Your task to perform on an android device: Search for the best rated mechanical keyboard on Amazon. Image 0: 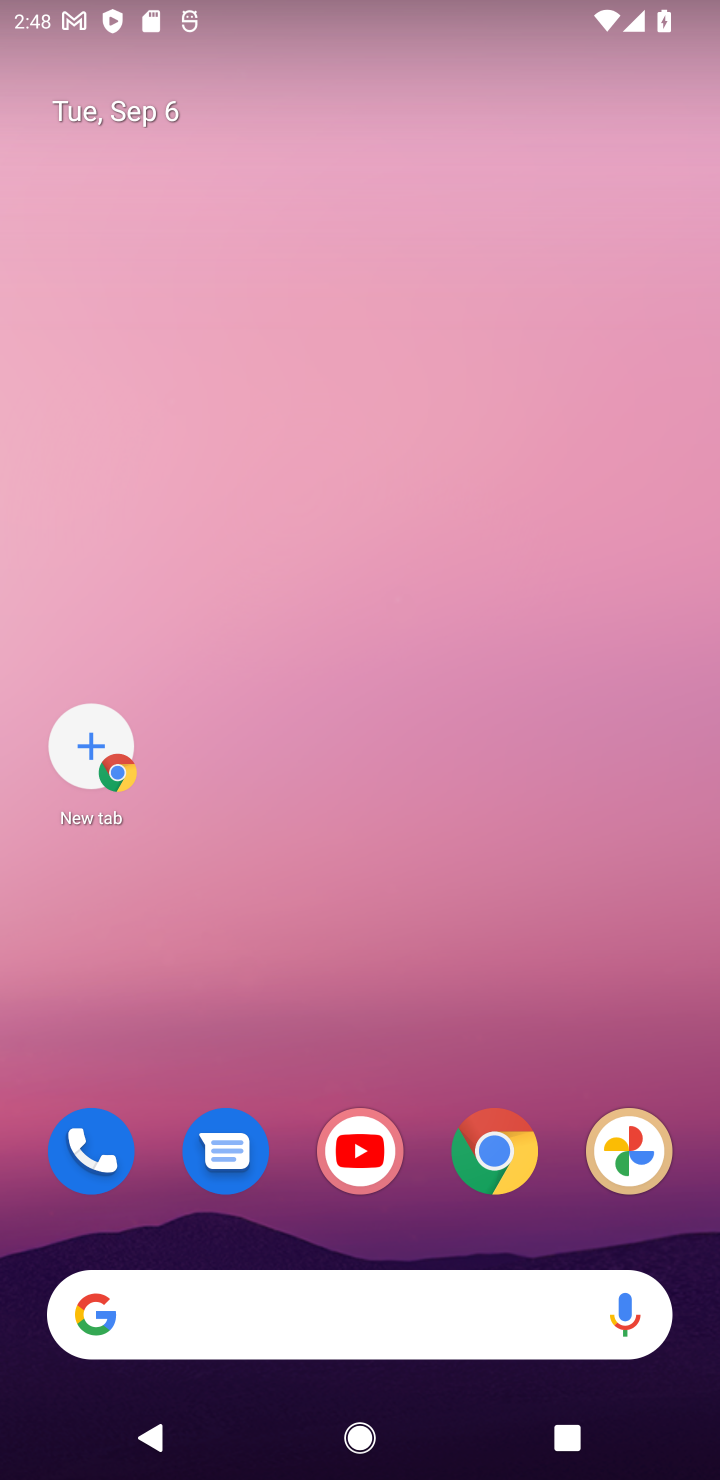
Step 0: click (518, 1171)
Your task to perform on an android device: Search for the best rated mechanical keyboard on Amazon. Image 1: 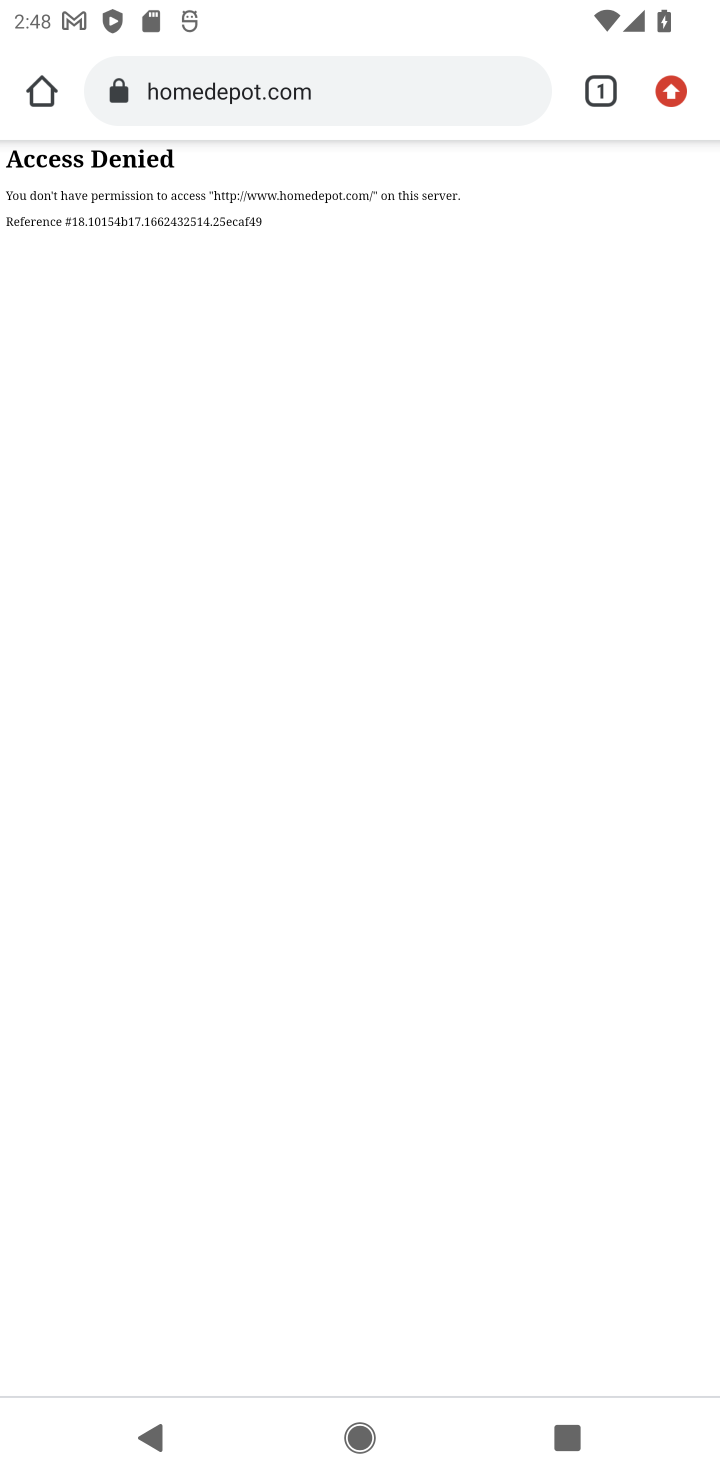
Step 1: click (236, 101)
Your task to perform on an android device: Search for the best rated mechanical keyboard on Amazon. Image 2: 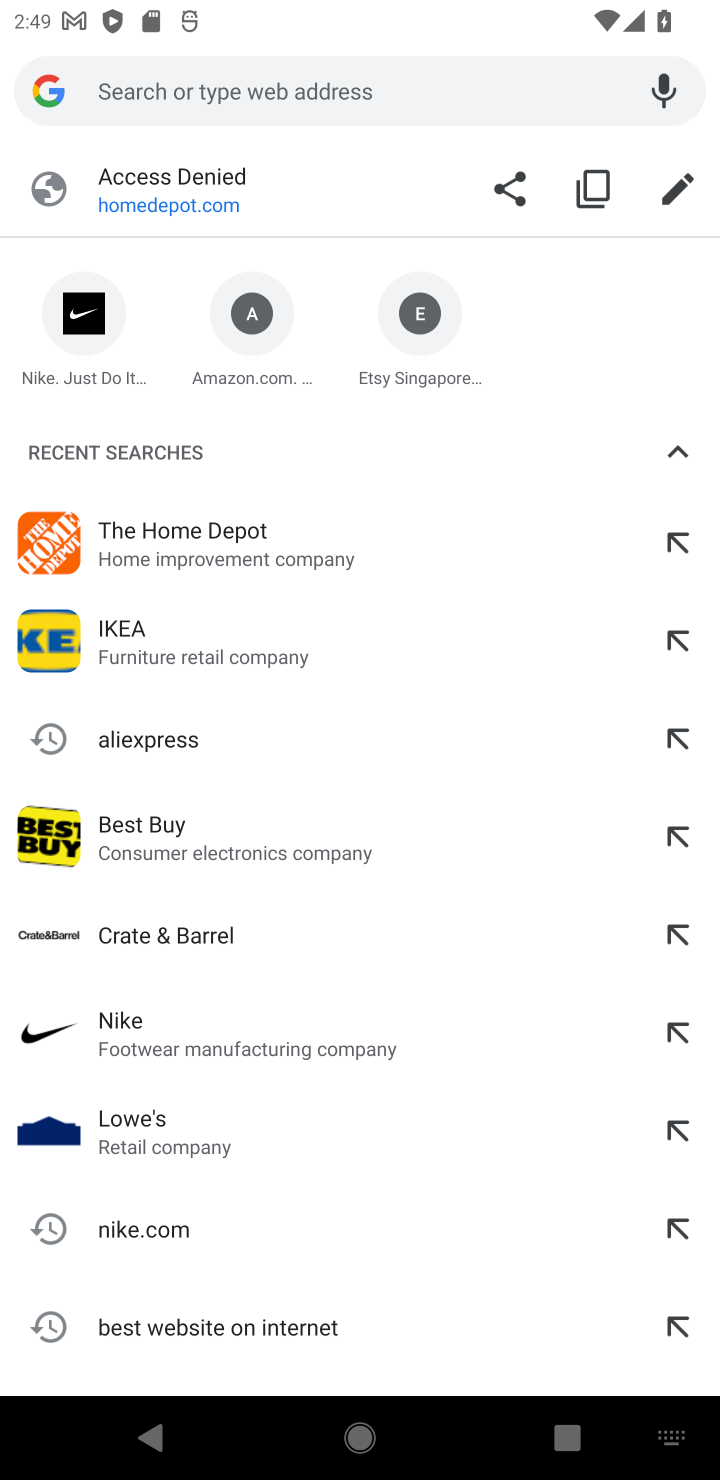
Step 2: type "amazon"
Your task to perform on an android device: Search for the best rated mechanical keyboard on Amazon. Image 3: 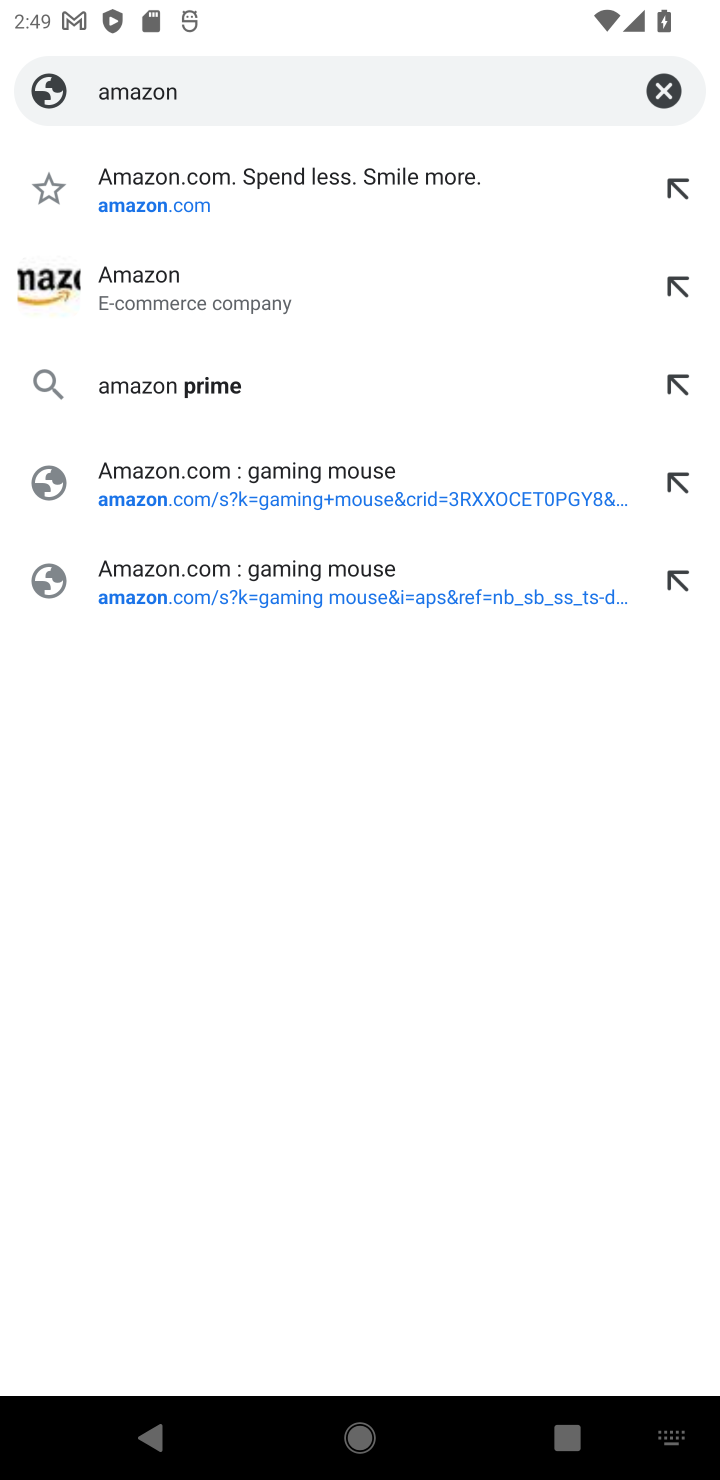
Step 3: click (107, 295)
Your task to perform on an android device: Search for the best rated mechanical keyboard on Amazon. Image 4: 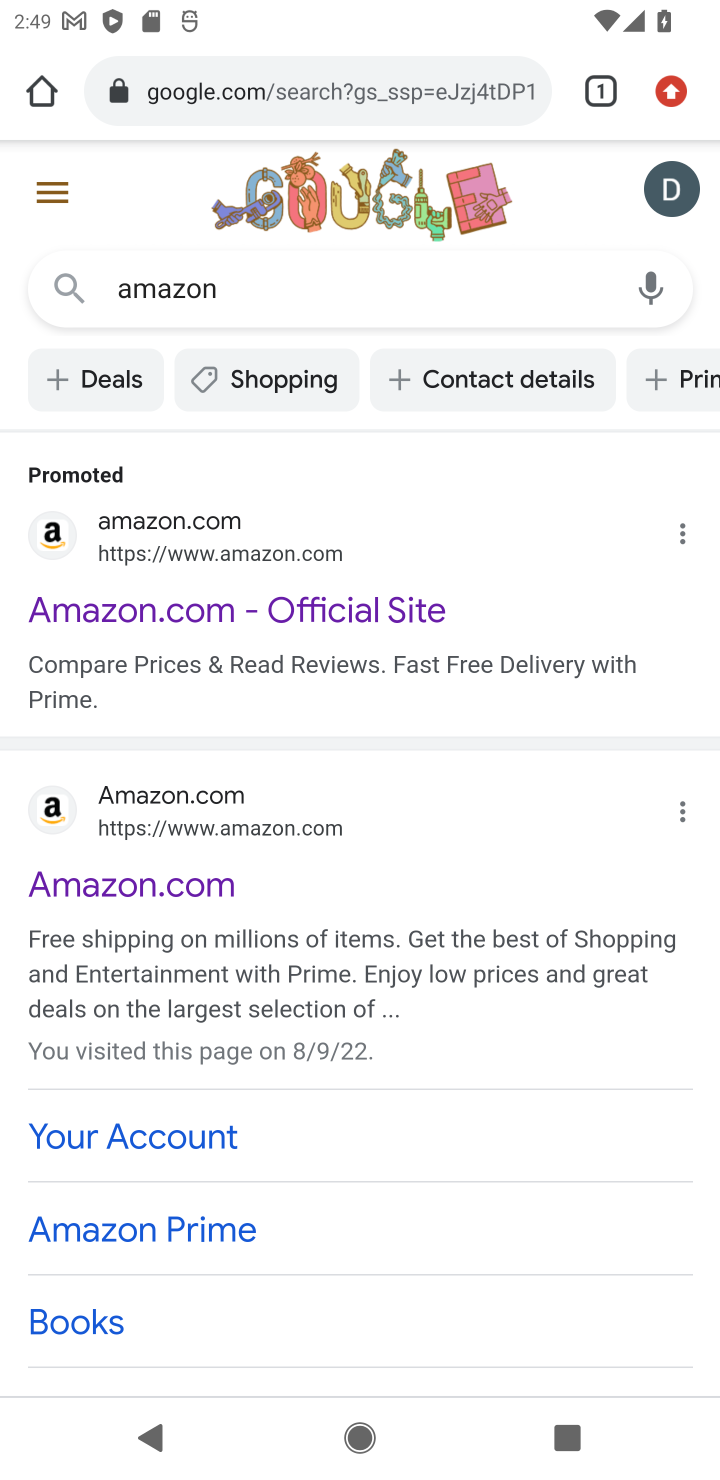
Step 4: click (84, 886)
Your task to perform on an android device: Search for the best rated mechanical keyboard on Amazon. Image 5: 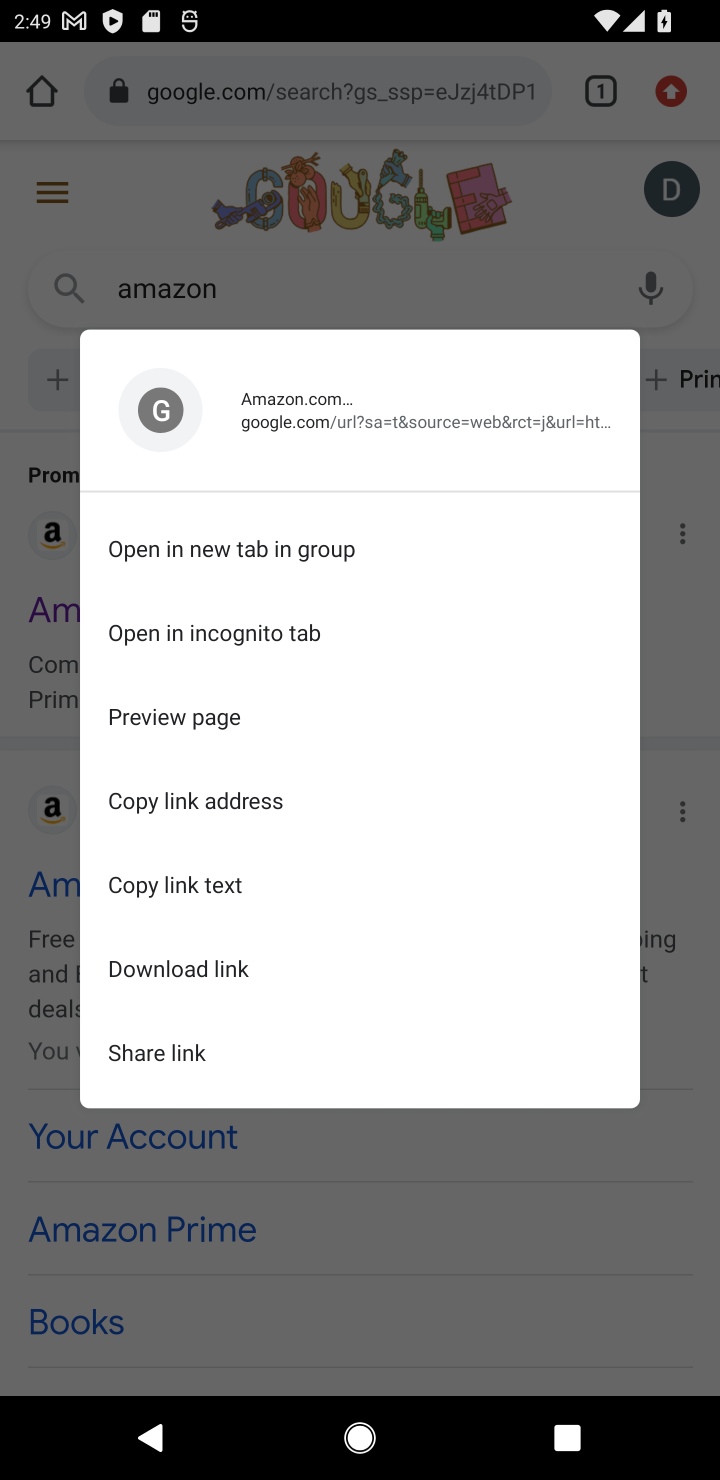
Step 5: click (697, 1077)
Your task to perform on an android device: Search for the best rated mechanical keyboard on Amazon. Image 6: 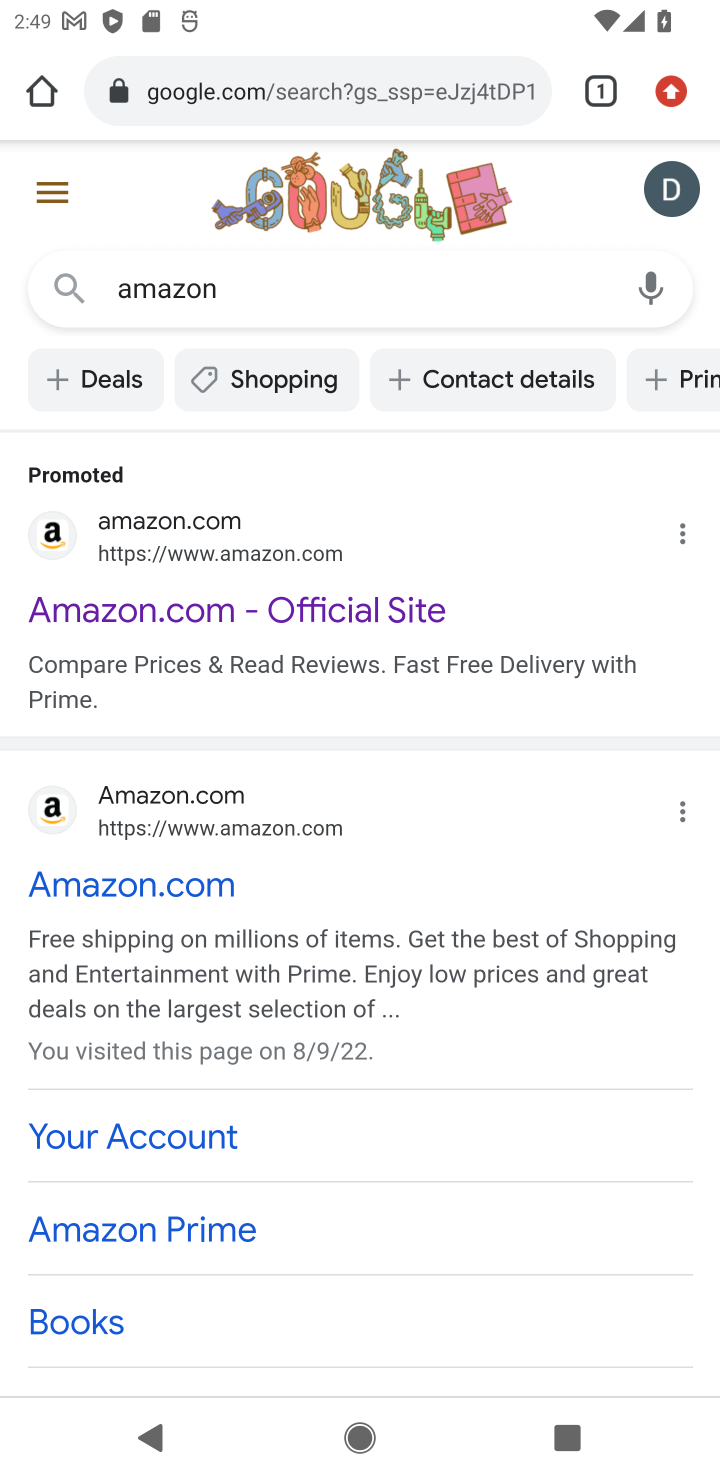
Step 6: click (87, 885)
Your task to perform on an android device: Search for the best rated mechanical keyboard on Amazon. Image 7: 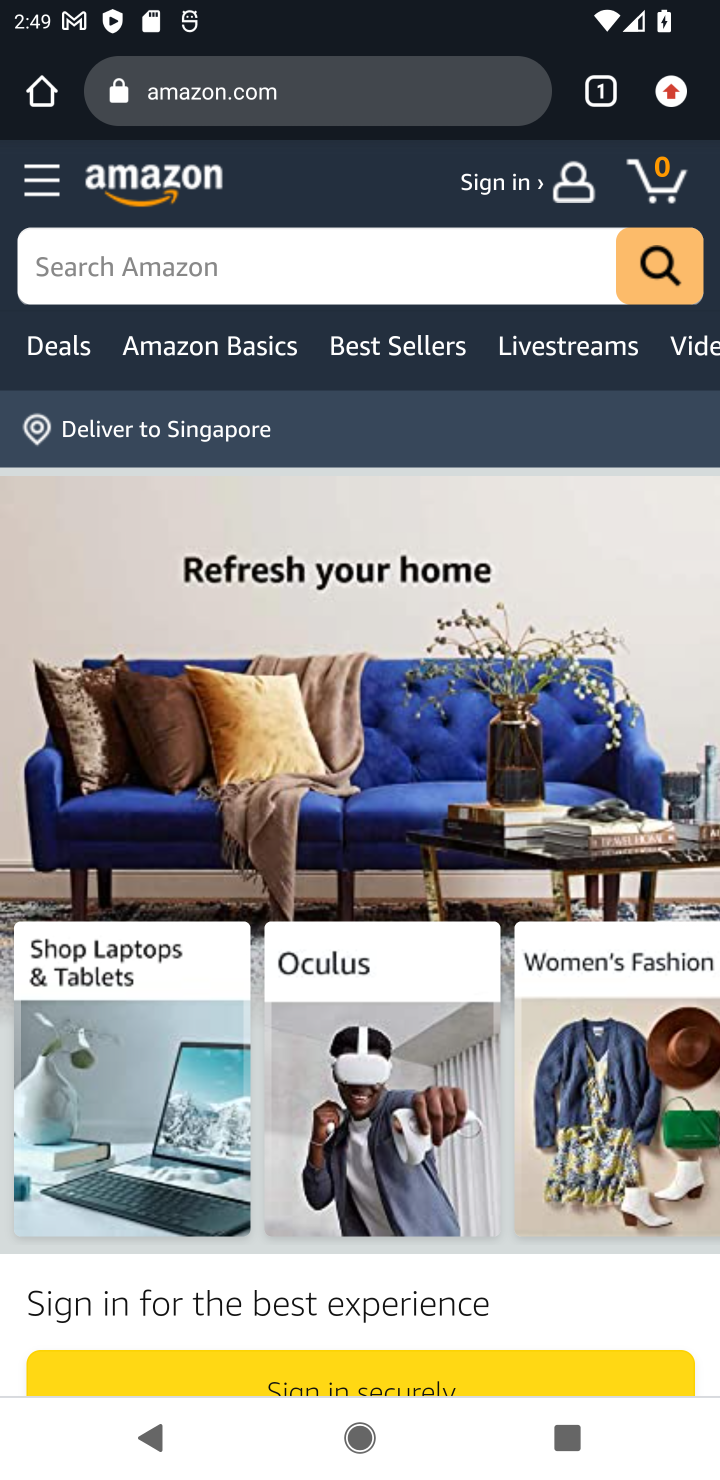
Step 7: click (118, 266)
Your task to perform on an android device: Search for the best rated mechanical keyboard on Amazon. Image 8: 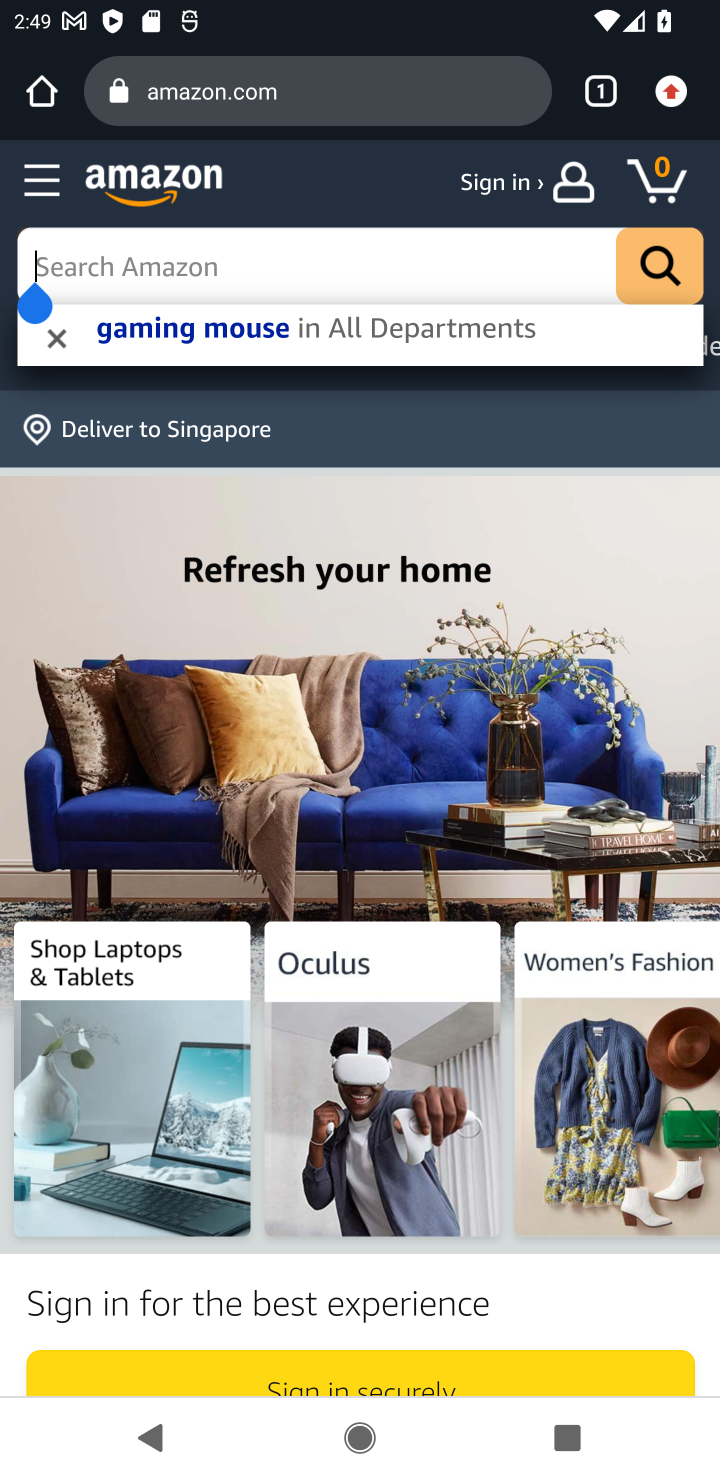
Step 8: type "mechanical keyboard"
Your task to perform on an android device: Search for the best rated mechanical keyboard on Amazon. Image 9: 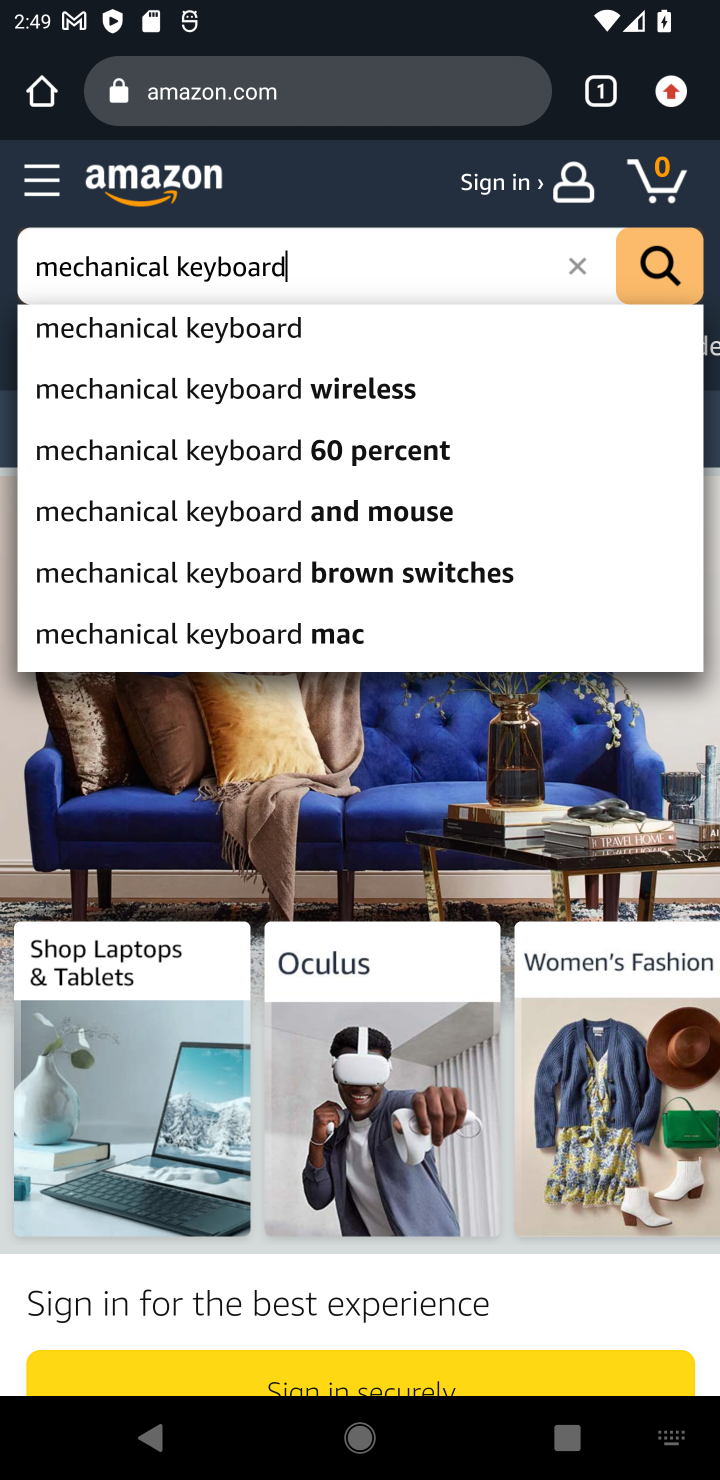
Step 9: click (183, 325)
Your task to perform on an android device: Search for the best rated mechanical keyboard on Amazon. Image 10: 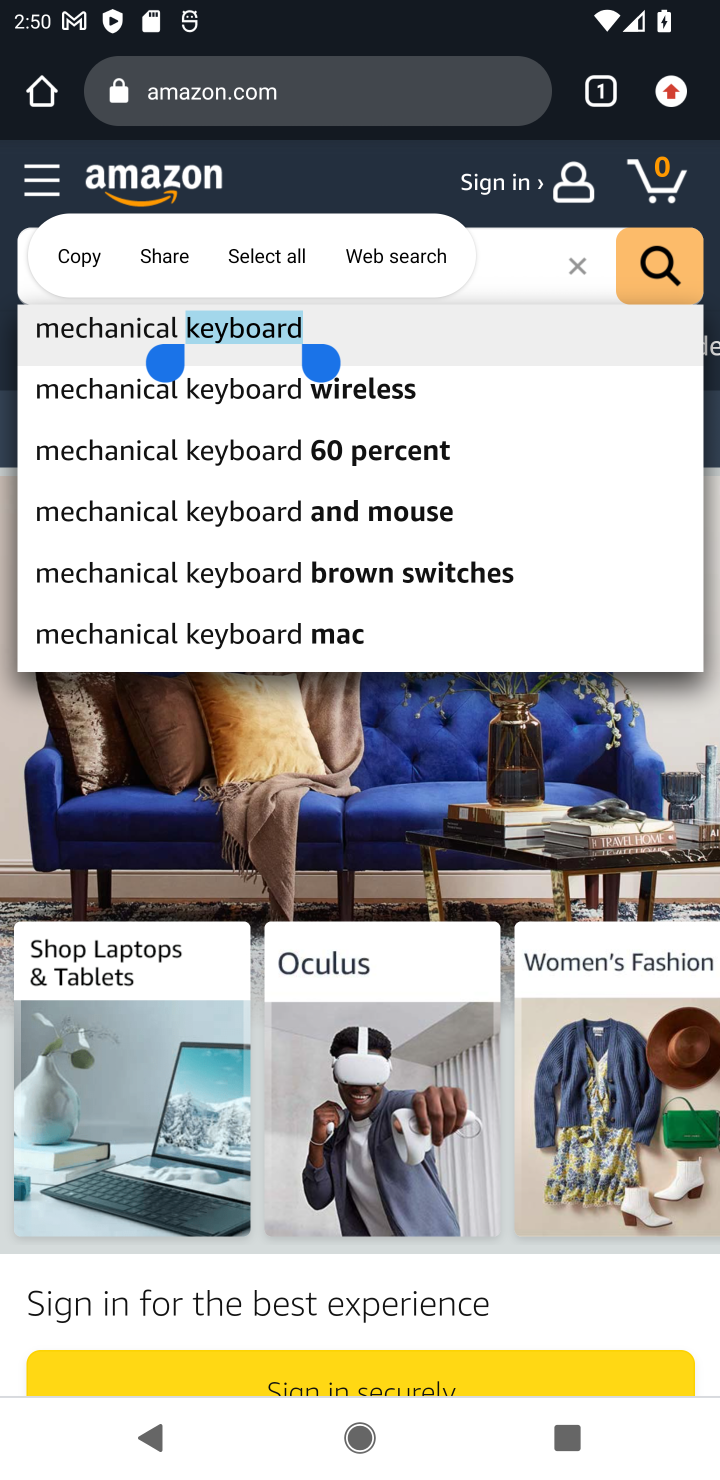
Step 10: click (89, 343)
Your task to perform on an android device: Search for the best rated mechanical keyboard on Amazon. Image 11: 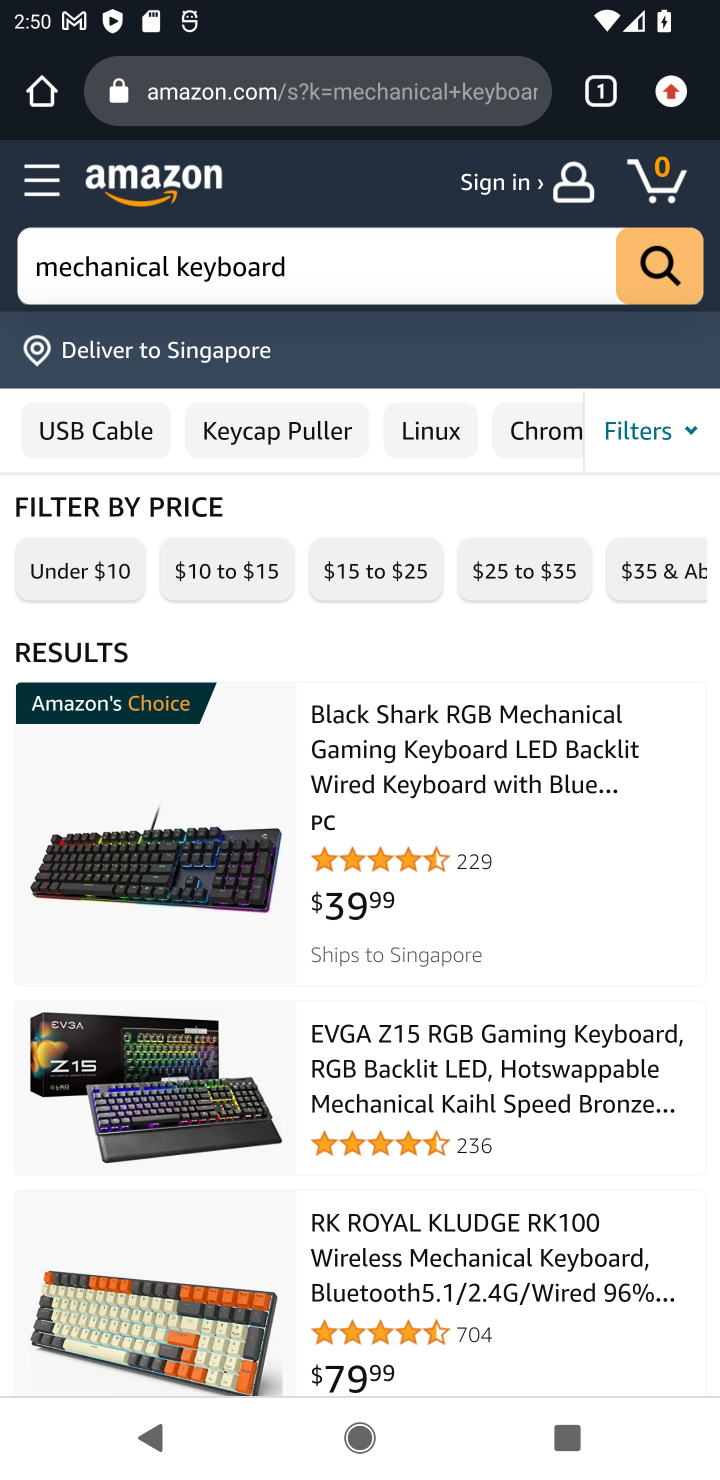
Step 11: click (637, 578)
Your task to perform on an android device: Search for the best rated mechanical keyboard on Amazon. Image 12: 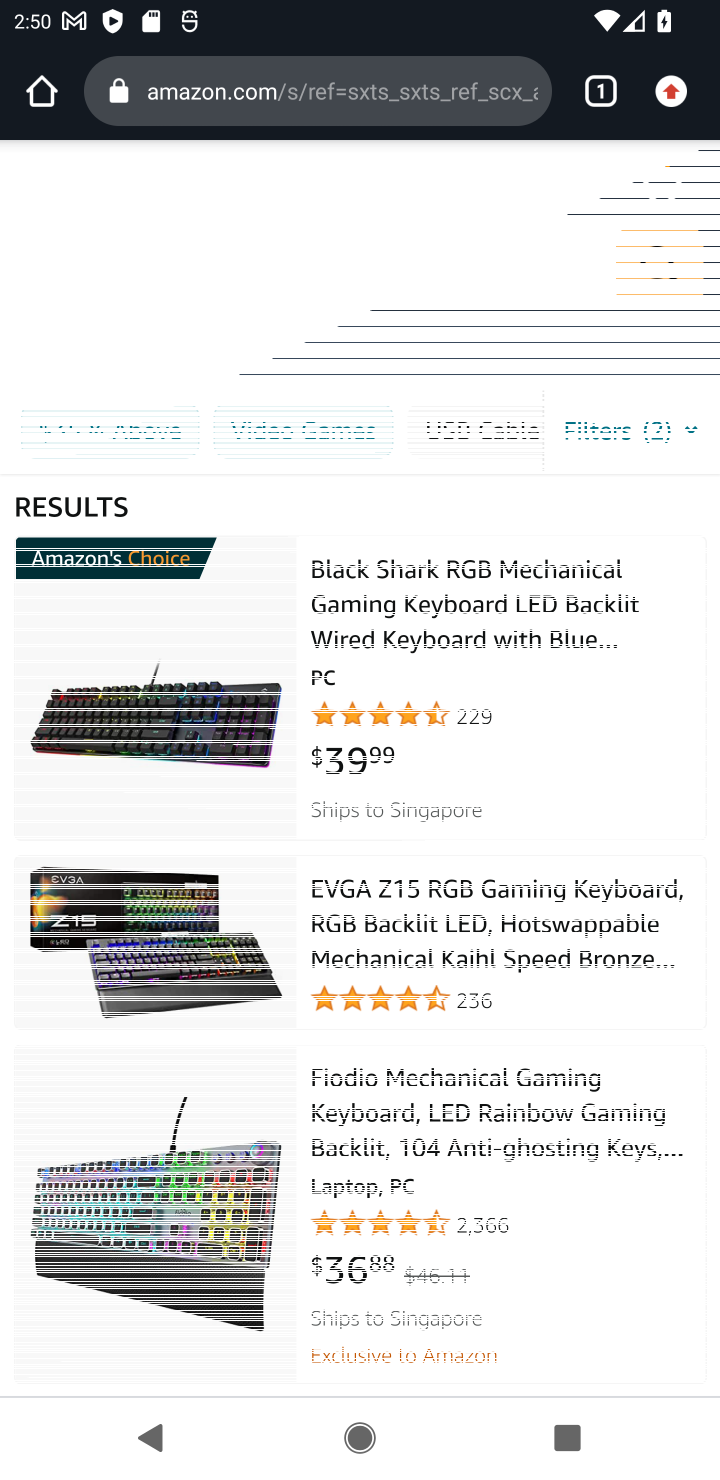
Step 12: drag from (620, 982) to (576, 604)
Your task to perform on an android device: Search for the best rated mechanical keyboard on Amazon. Image 13: 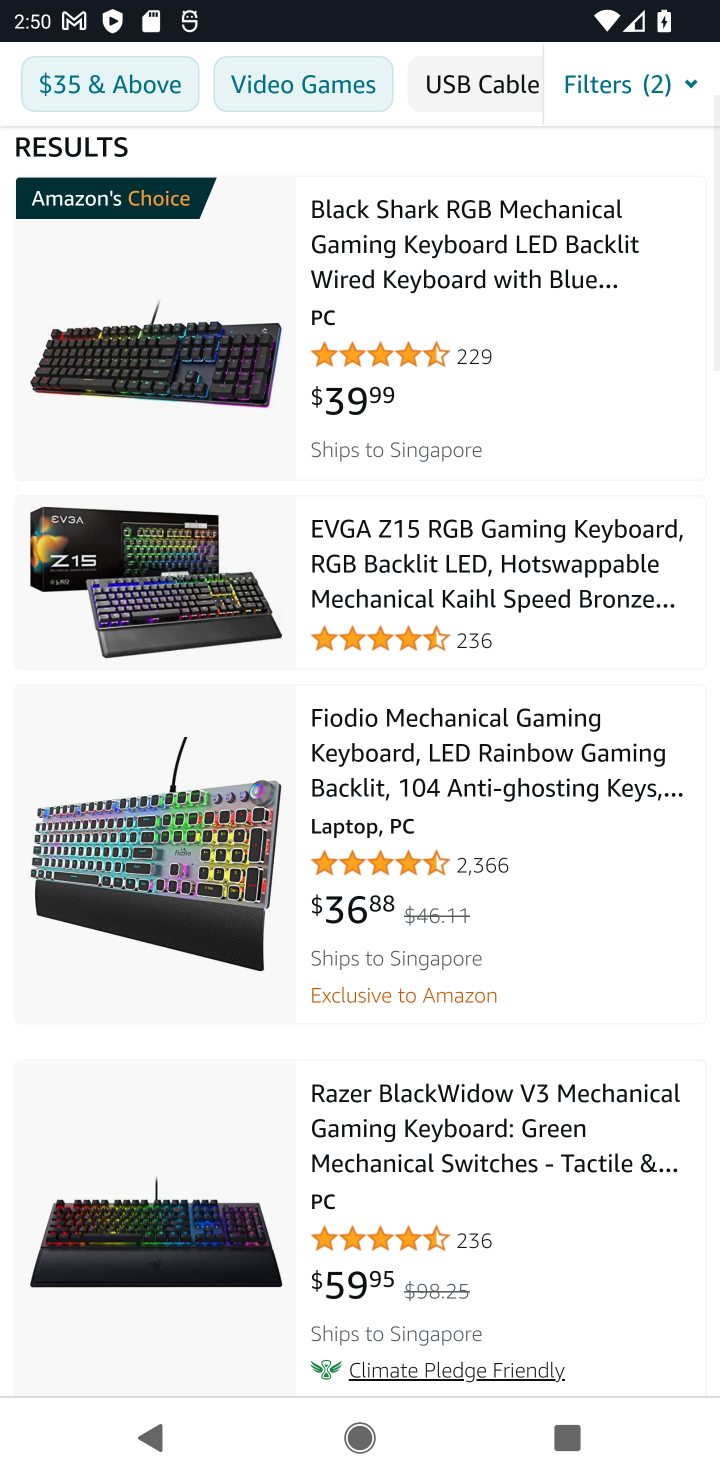
Step 13: drag from (325, 904) to (281, 252)
Your task to perform on an android device: Search for the best rated mechanical keyboard on Amazon. Image 14: 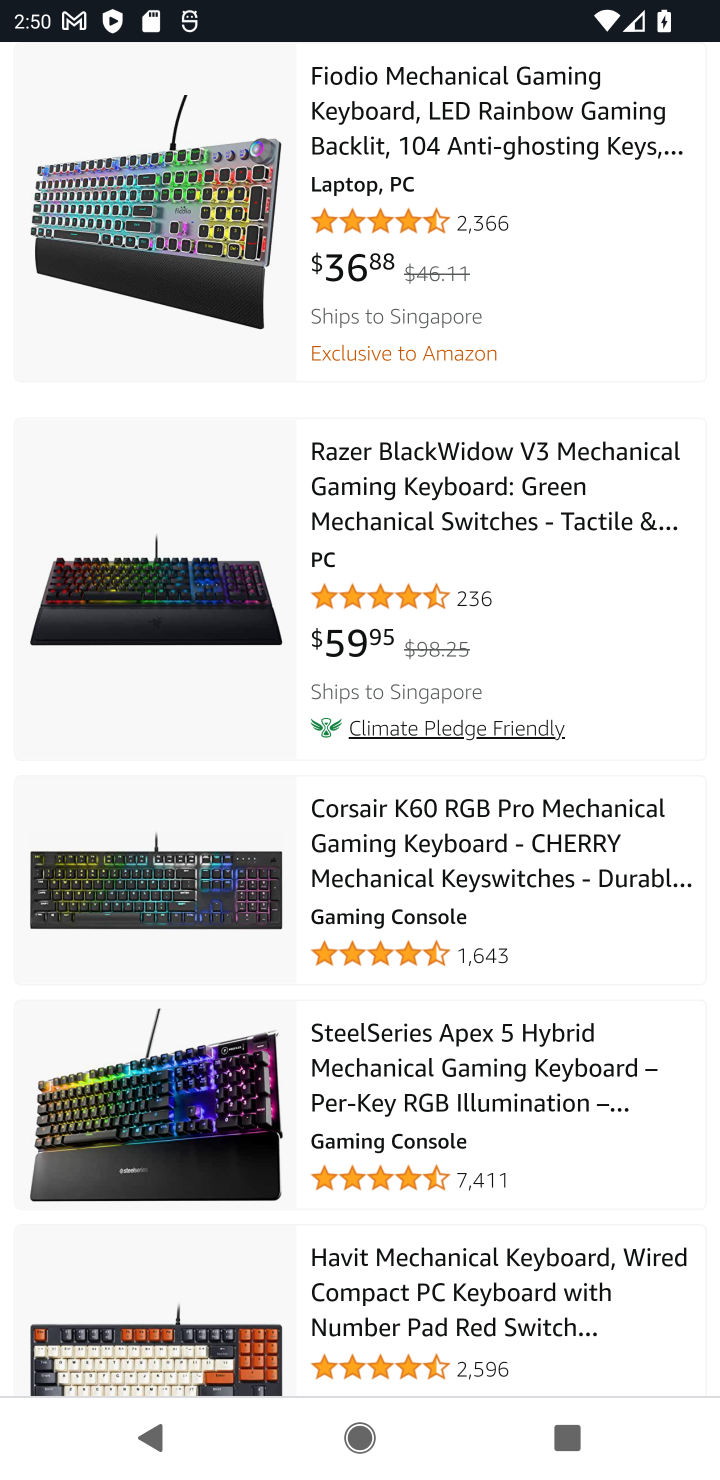
Step 14: drag from (263, 727) to (222, 411)
Your task to perform on an android device: Search for the best rated mechanical keyboard on Amazon. Image 15: 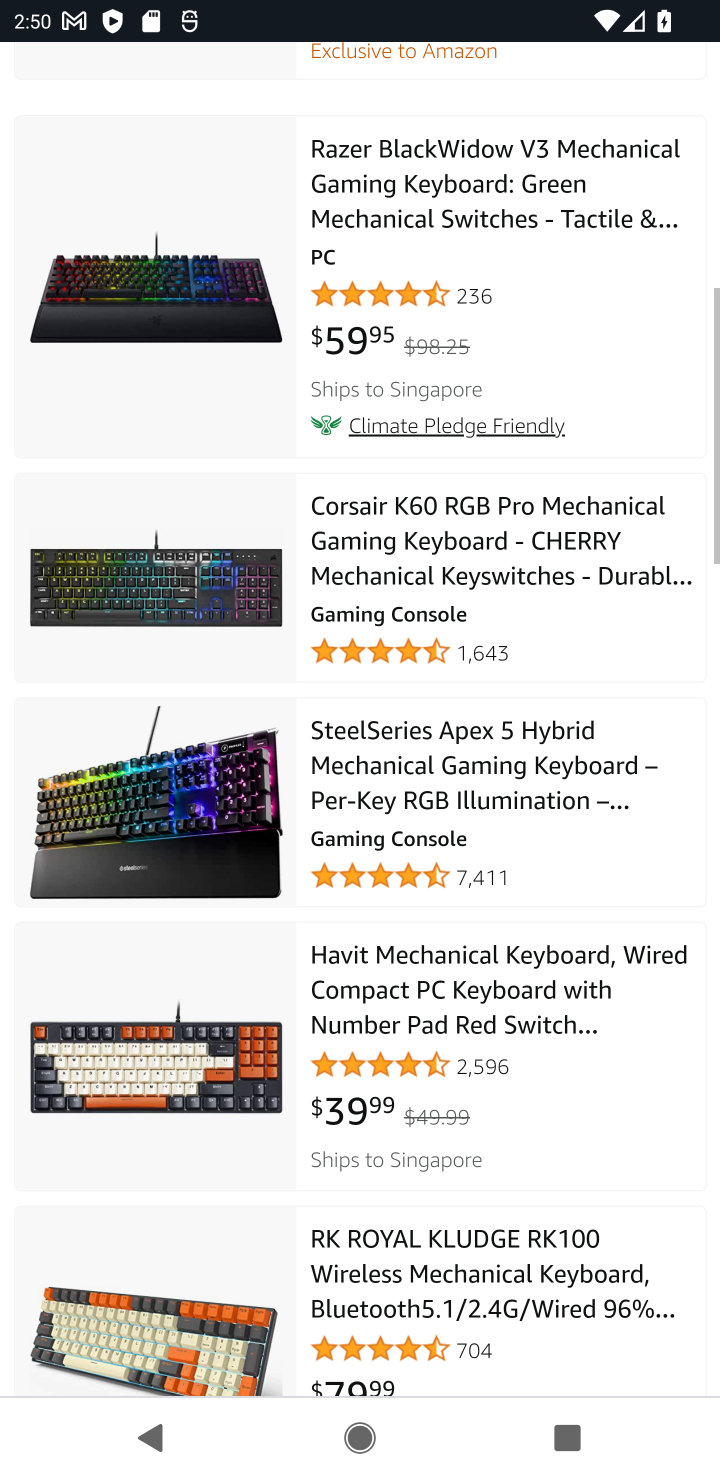
Step 15: drag from (196, 864) to (183, 658)
Your task to perform on an android device: Search for the best rated mechanical keyboard on Amazon. Image 16: 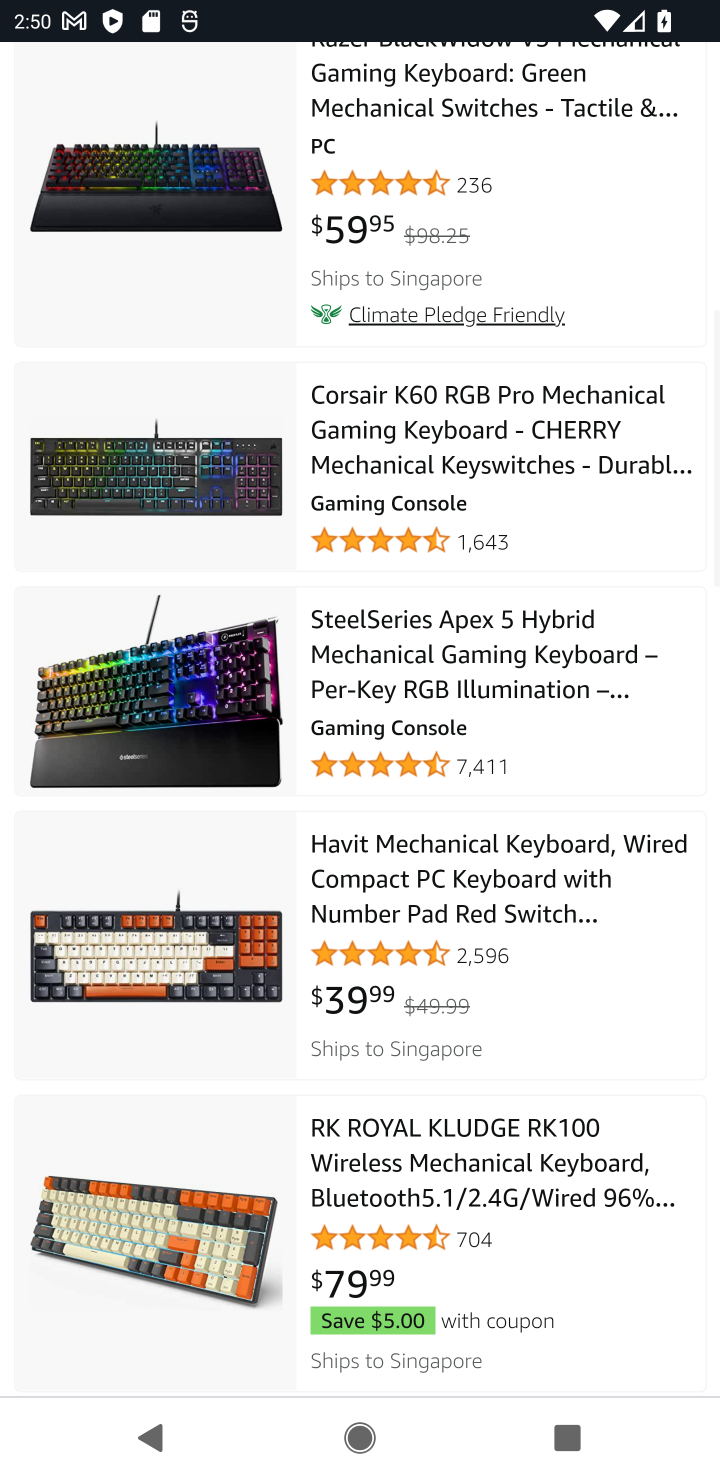
Step 16: drag from (213, 1102) to (174, 689)
Your task to perform on an android device: Search for the best rated mechanical keyboard on Amazon. Image 17: 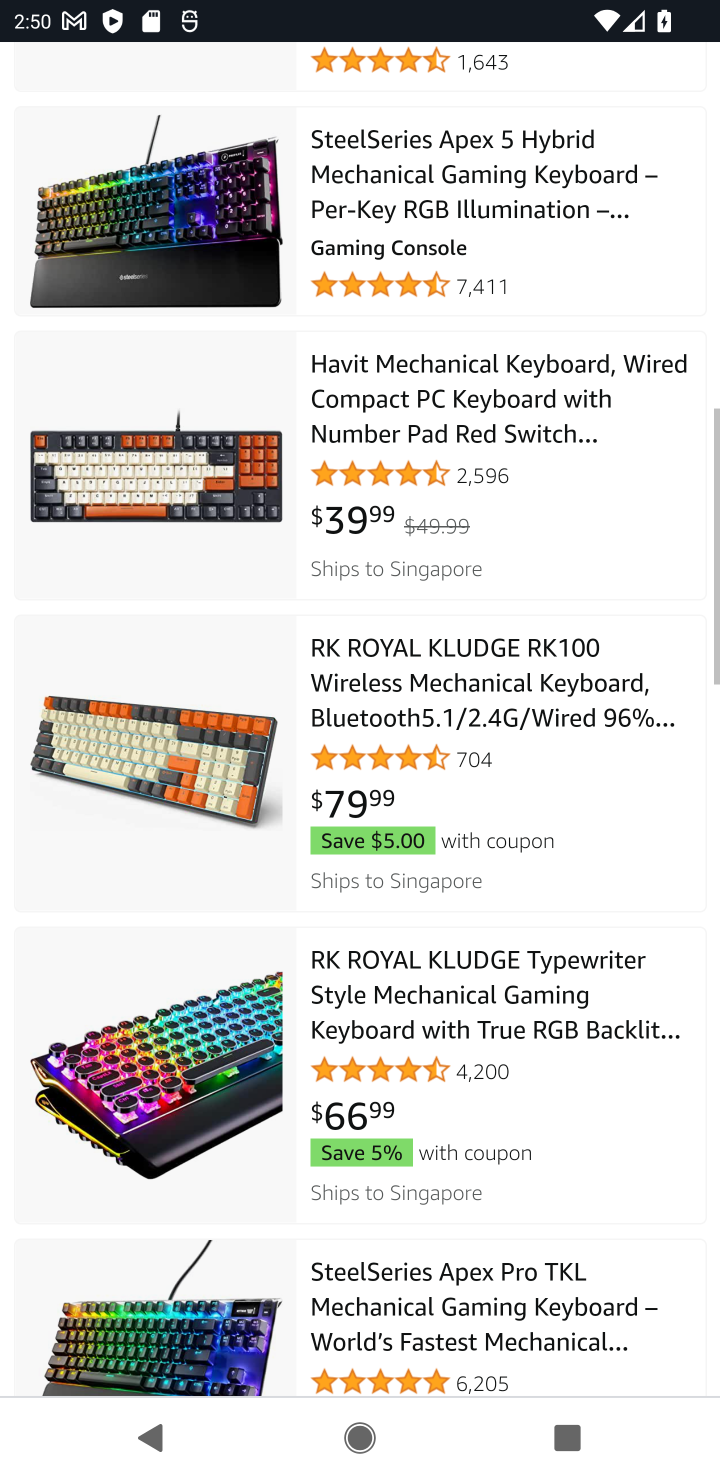
Step 17: drag from (173, 1118) to (173, 712)
Your task to perform on an android device: Search for the best rated mechanical keyboard on Amazon. Image 18: 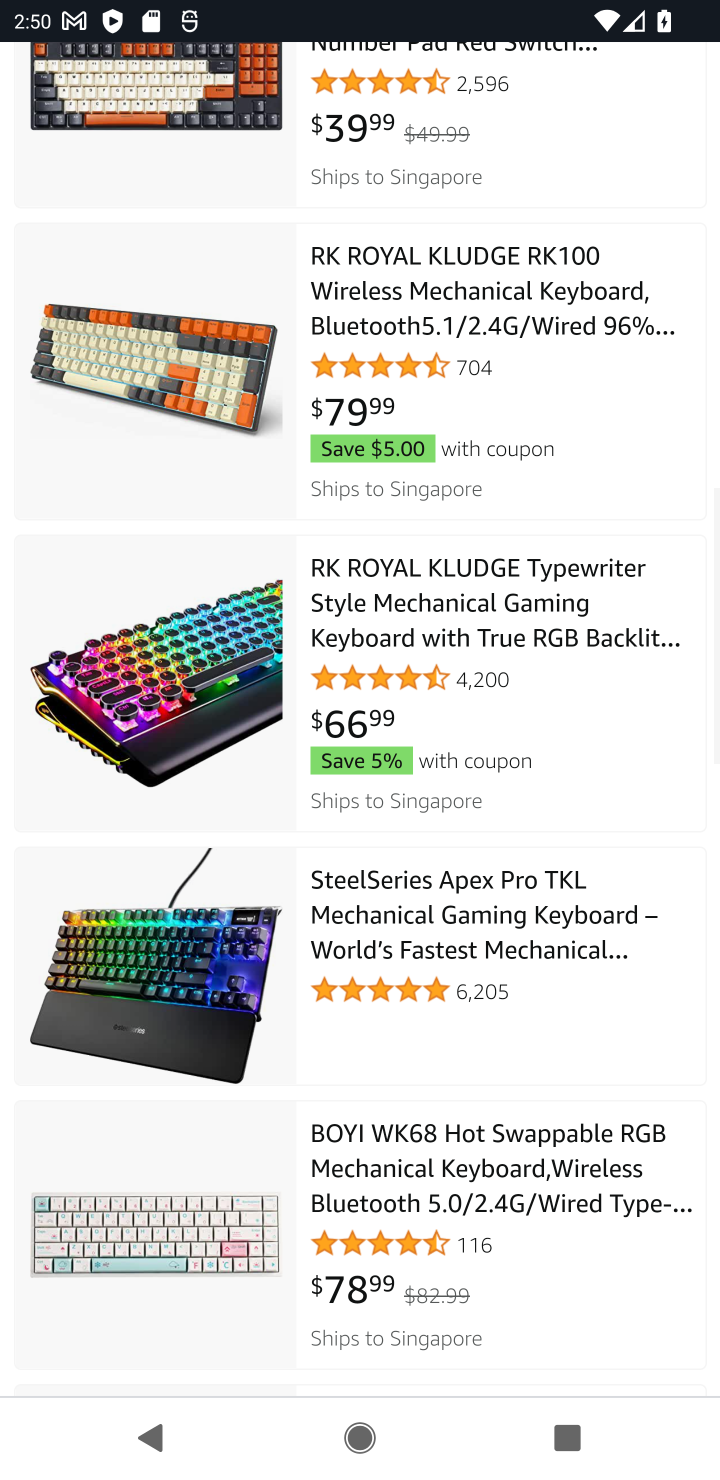
Step 18: drag from (135, 833) to (125, 561)
Your task to perform on an android device: Search for the best rated mechanical keyboard on Amazon. Image 19: 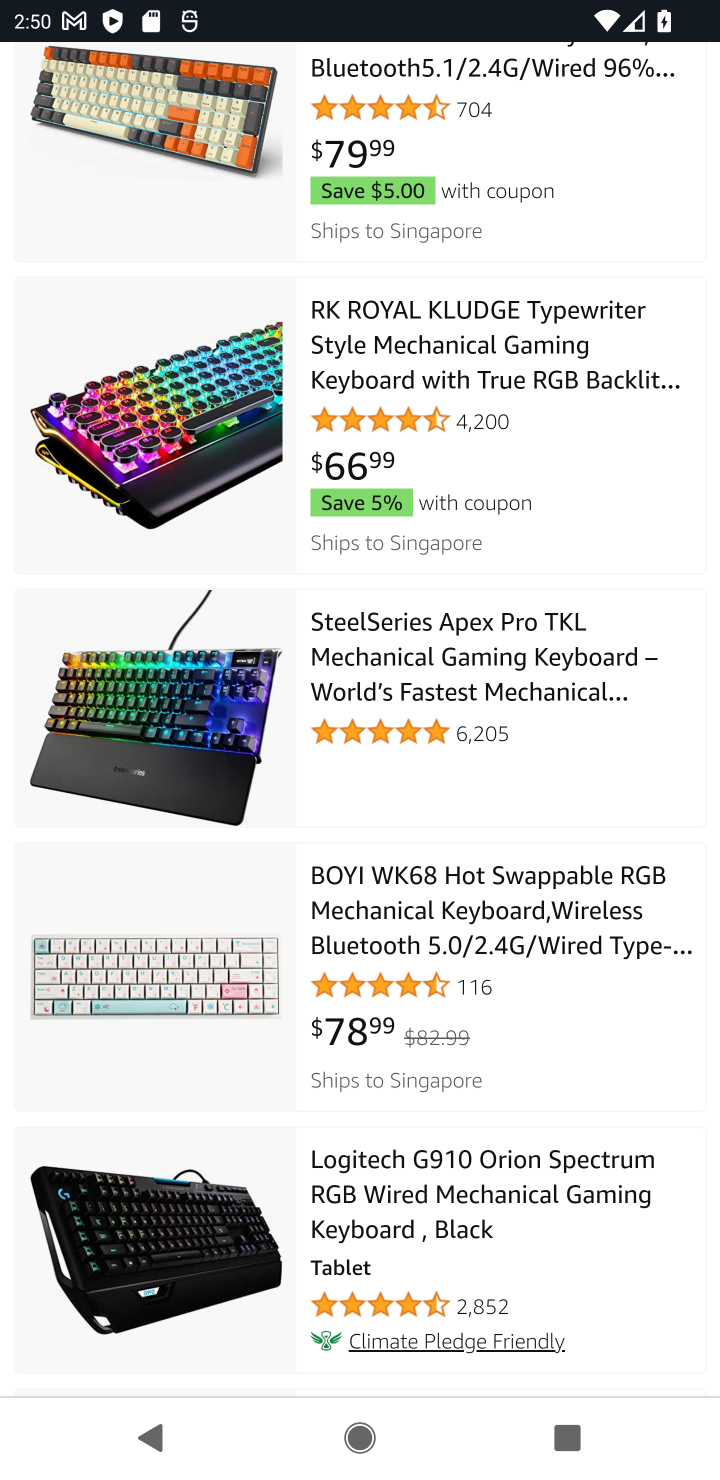
Step 19: click (182, 745)
Your task to perform on an android device: Search for the best rated mechanical keyboard on Amazon. Image 20: 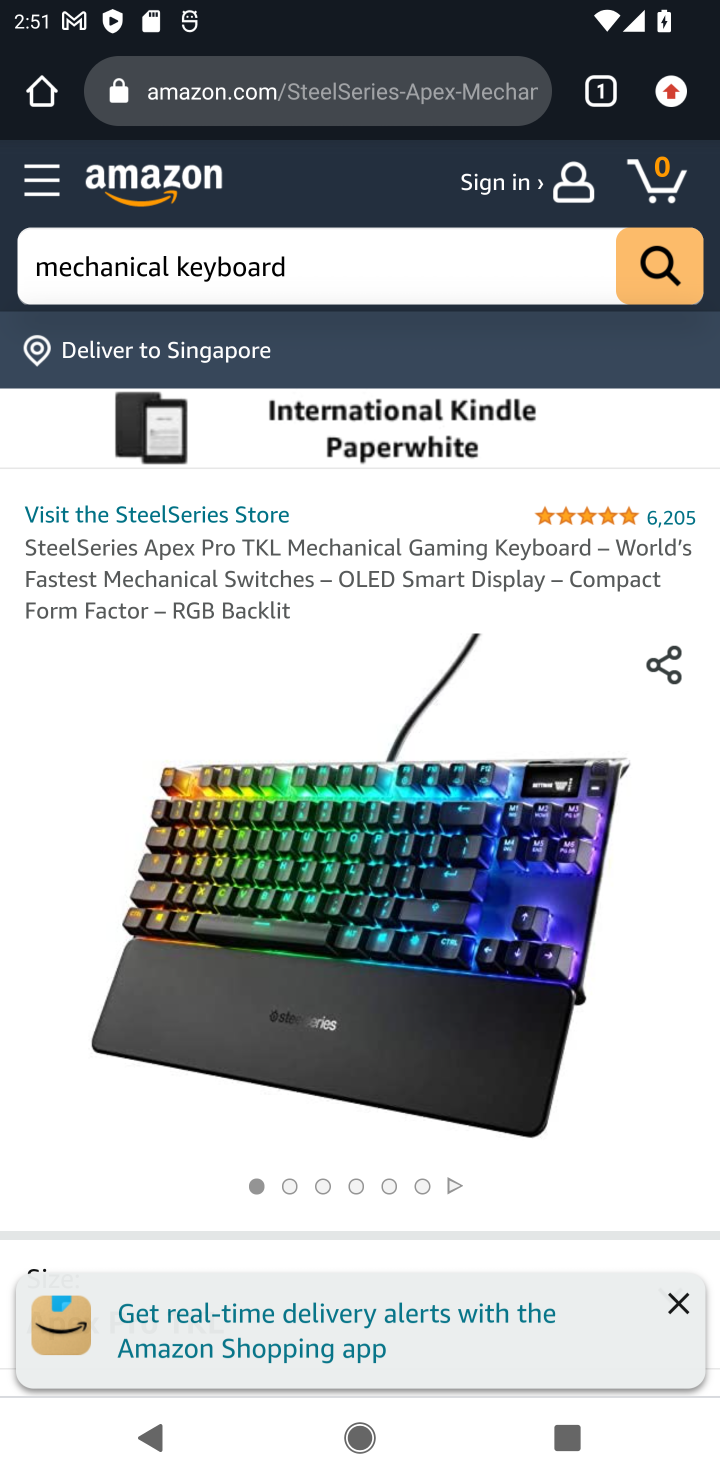
Step 20: task complete